Your task to perform on an android device: Go to CNN.com Image 0: 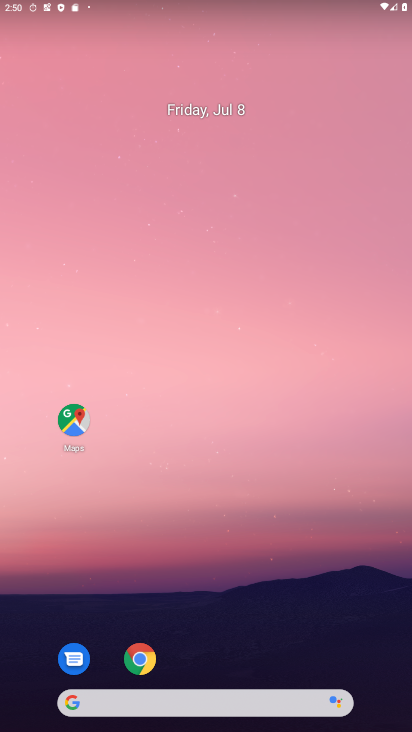
Step 0: click (138, 665)
Your task to perform on an android device: Go to CNN.com Image 1: 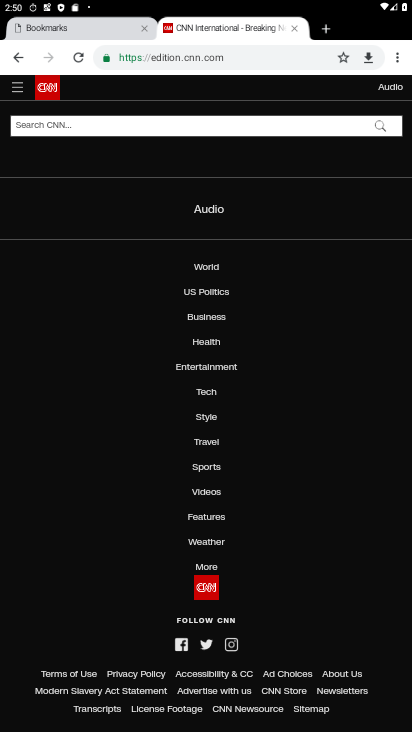
Step 1: task complete